Your task to perform on an android device: turn notification dots on Image 0: 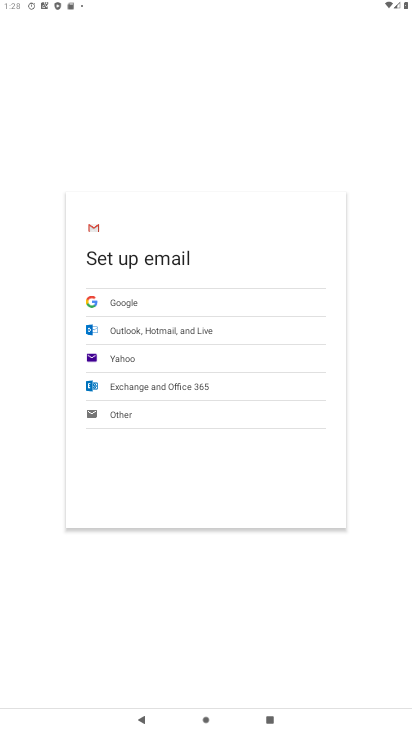
Step 0: press home button
Your task to perform on an android device: turn notification dots on Image 1: 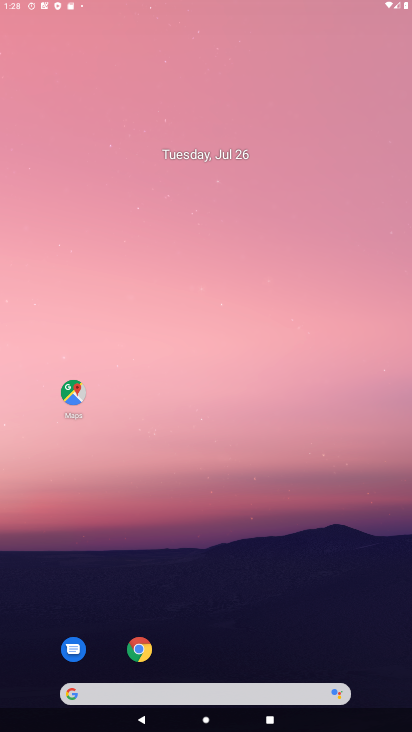
Step 1: drag from (371, 510) to (237, 55)
Your task to perform on an android device: turn notification dots on Image 2: 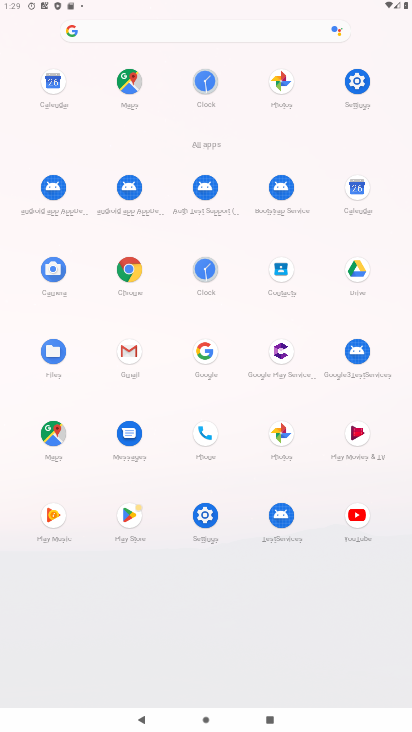
Step 2: click (209, 534)
Your task to perform on an android device: turn notification dots on Image 3: 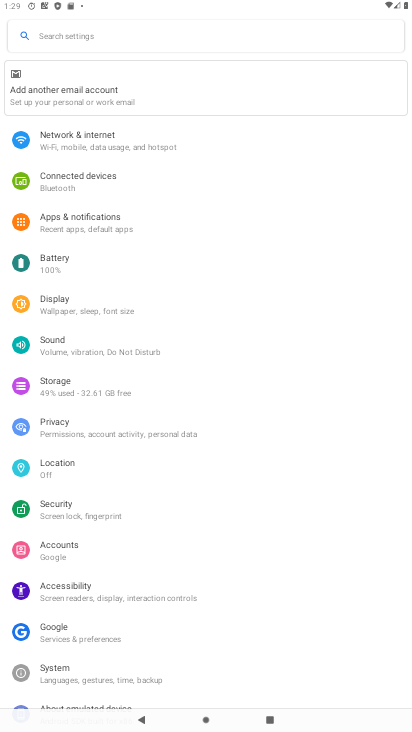
Step 3: click (104, 232)
Your task to perform on an android device: turn notification dots on Image 4: 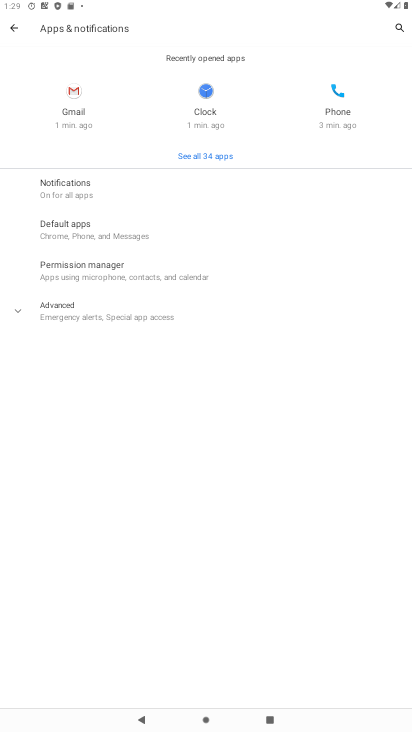
Step 4: click (78, 307)
Your task to perform on an android device: turn notification dots on Image 5: 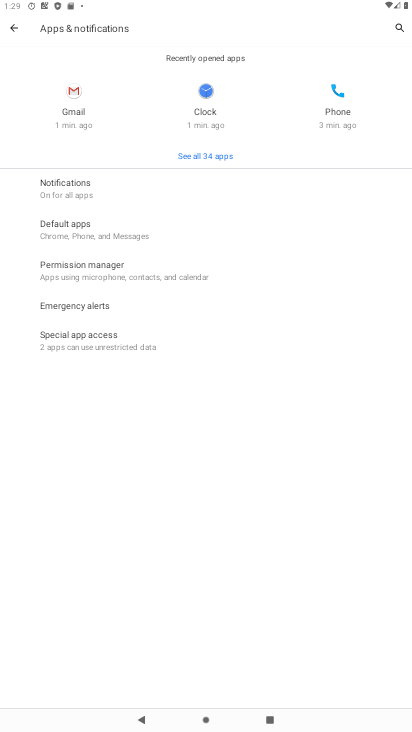
Step 5: click (84, 190)
Your task to perform on an android device: turn notification dots on Image 6: 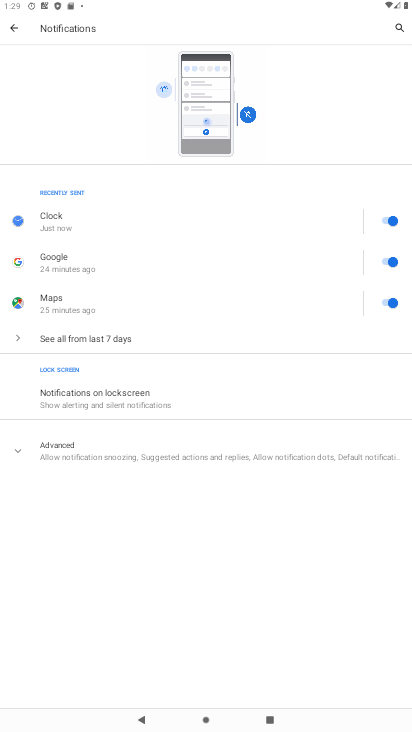
Step 6: click (61, 446)
Your task to perform on an android device: turn notification dots on Image 7: 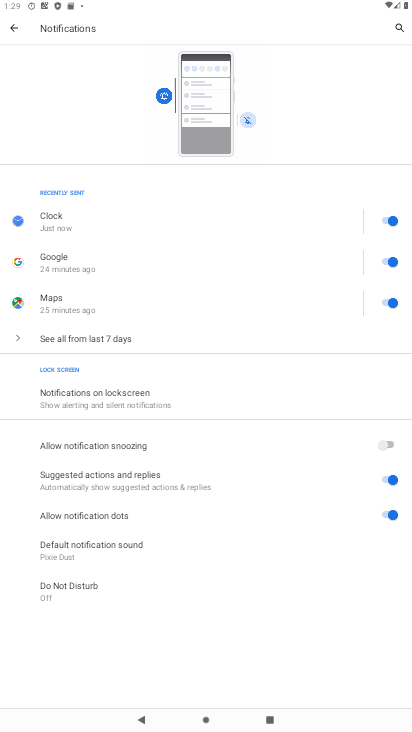
Step 7: click (117, 517)
Your task to perform on an android device: turn notification dots on Image 8: 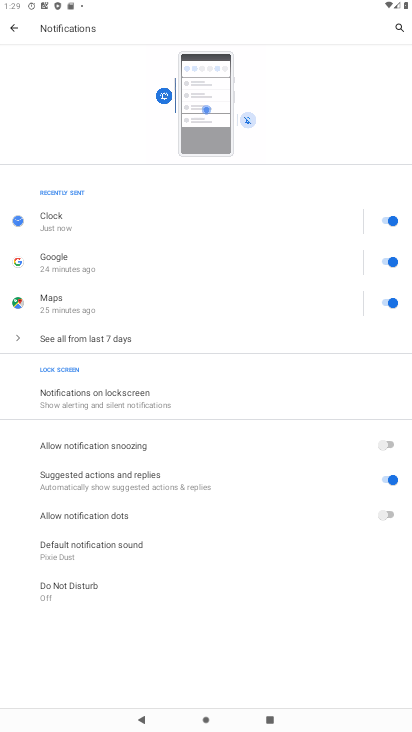
Step 8: click (117, 517)
Your task to perform on an android device: turn notification dots on Image 9: 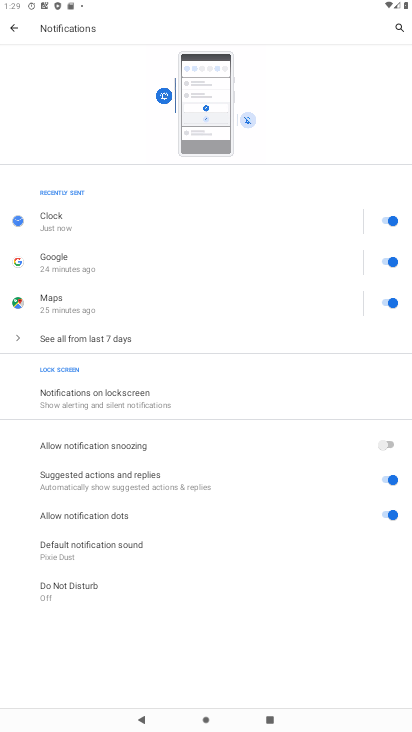
Step 9: task complete